Your task to perform on an android device: Open Wikipedia Image 0: 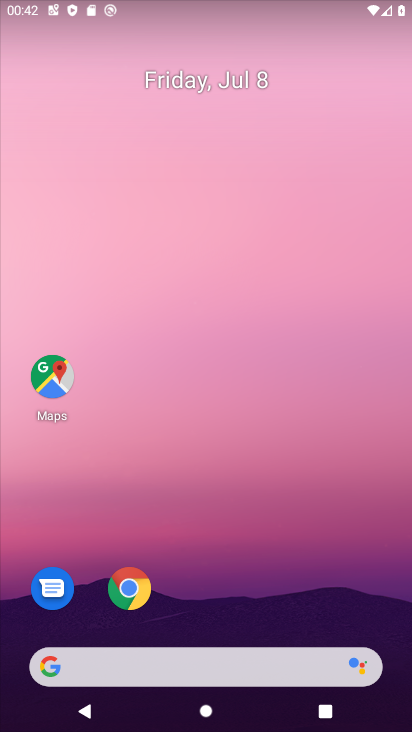
Step 0: drag from (225, 610) to (303, 152)
Your task to perform on an android device: Open Wikipedia Image 1: 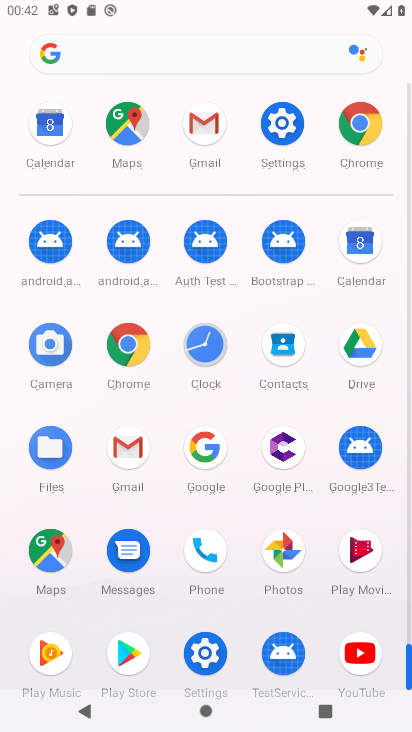
Step 1: click (364, 129)
Your task to perform on an android device: Open Wikipedia Image 2: 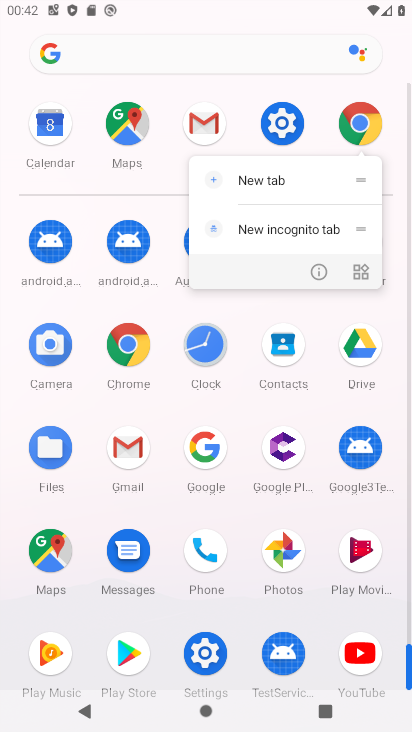
Step 2: click (327, 266)
Your task to perform on an android device: Open Wikipedia Image 3: 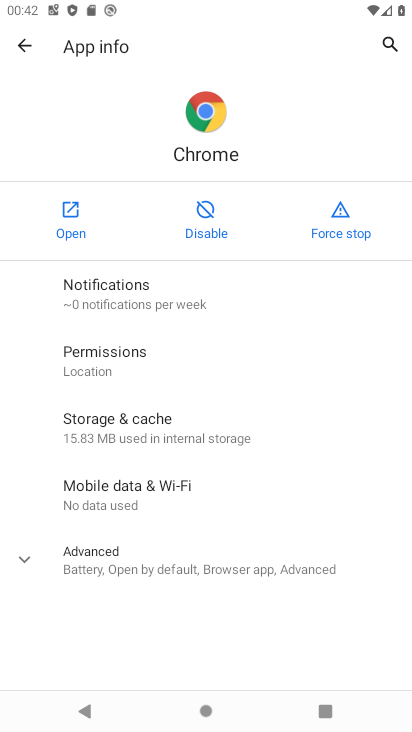
Step 3: click (71, 209)
Your task to perform on an android device: Open Wikipedia Image 4: 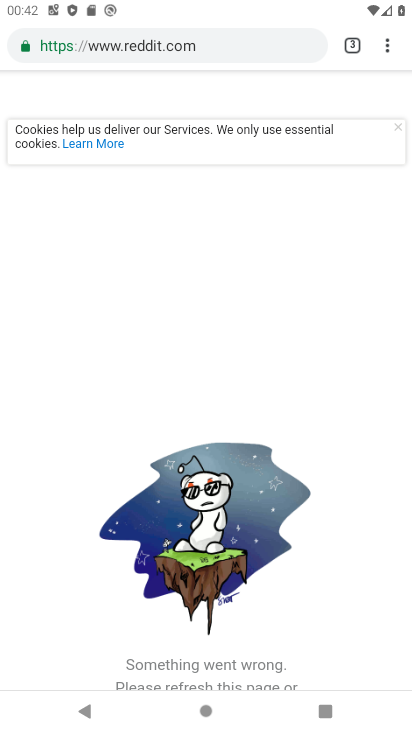
Step 4: click (397, 127)
Your task to perform on an android device: Open Wikipedia Image 5: 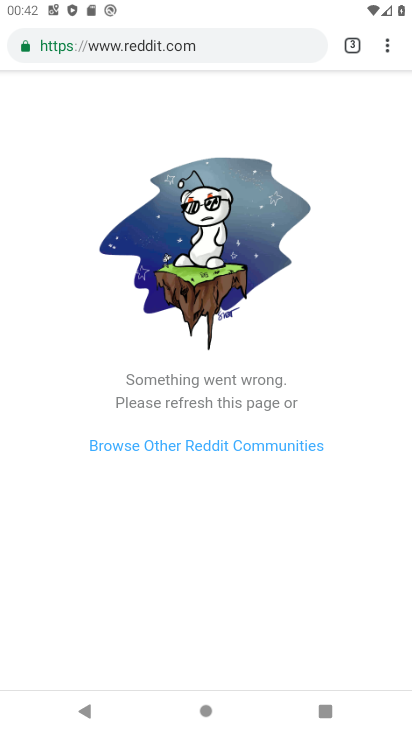
Step 5: click (359, 43)
Your task to perform on an android device: Open Wikipedia Image 6: 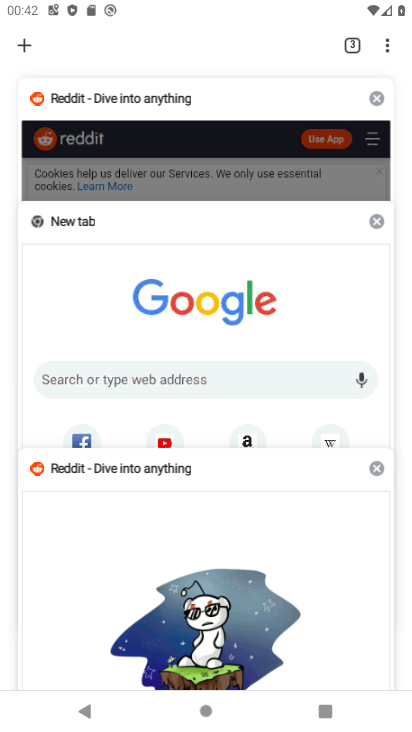
Step 6: click (104, 302)
Your task to perform on an android device: Open Wikipedia Image 7: 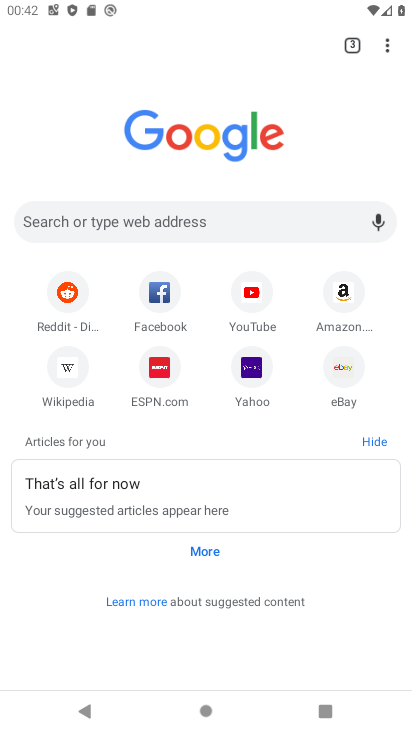
Step 7: click (77, 374)
Your task to perform on an android device: Open Wikipedia Image 8: 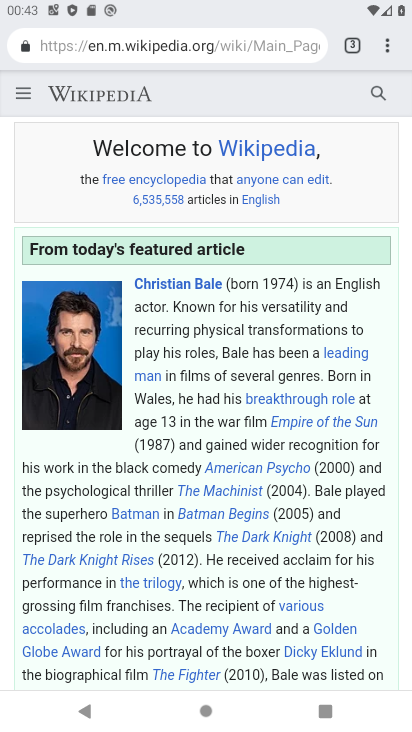
Step 8: task complete